Your task to perform on an android device: install app "Google Maps" Image 0: 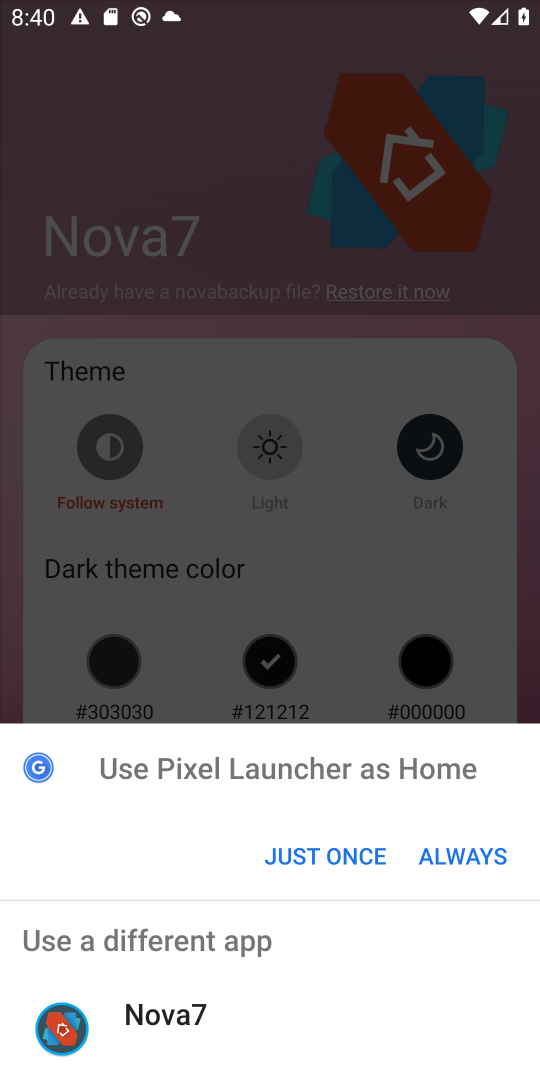
Step 0: click (471, 852)
Your task to perform on an android device: install app "Google Maps" Image 1: 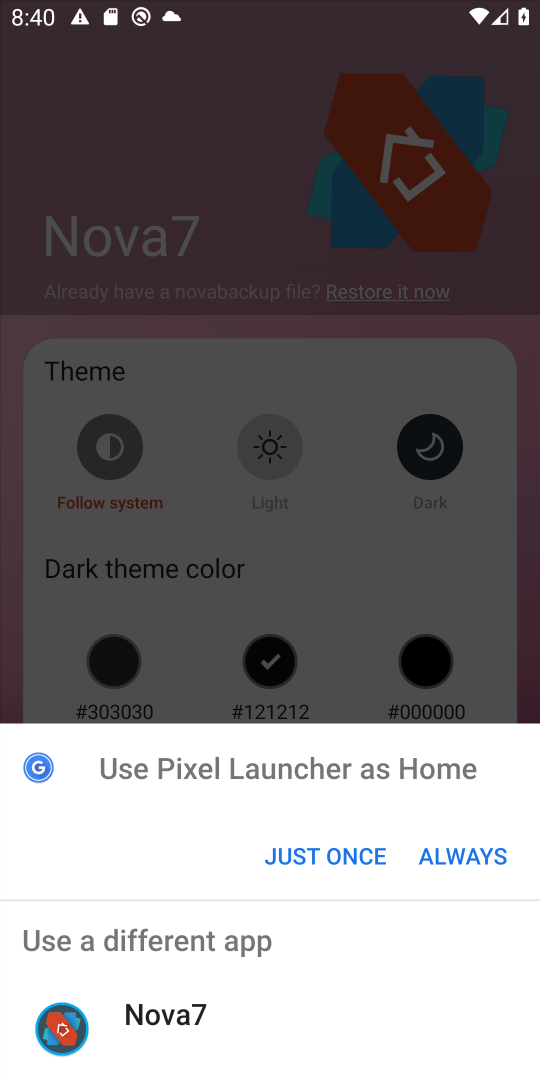
Step 1: press home button
Your task to perform on an android device: install app "Google Maps" Image 2: 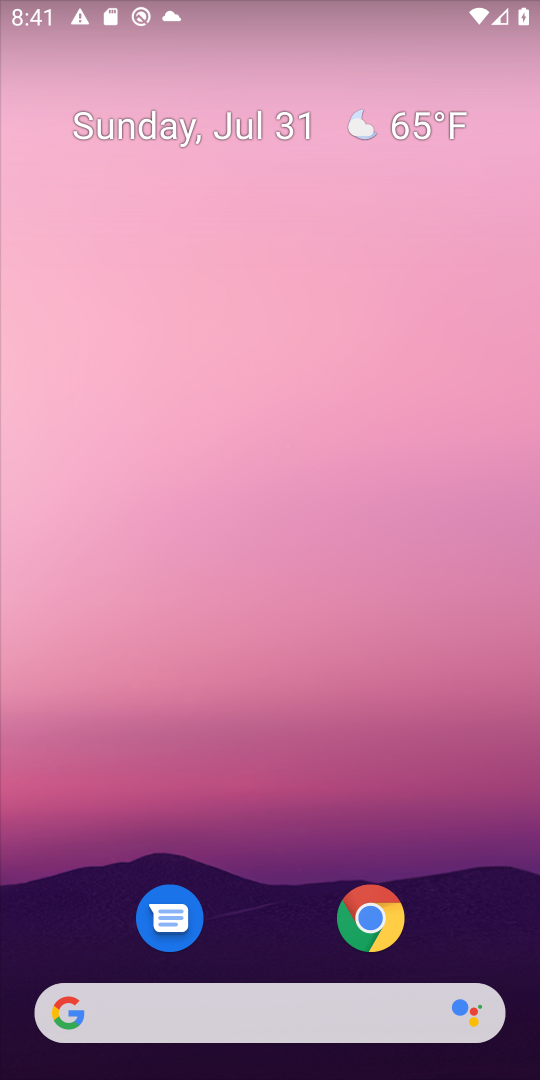
Step 2: drag from (200, 711) to (135, 235)
Your task to perform on an android device: install app "Google Maps" Image 3: 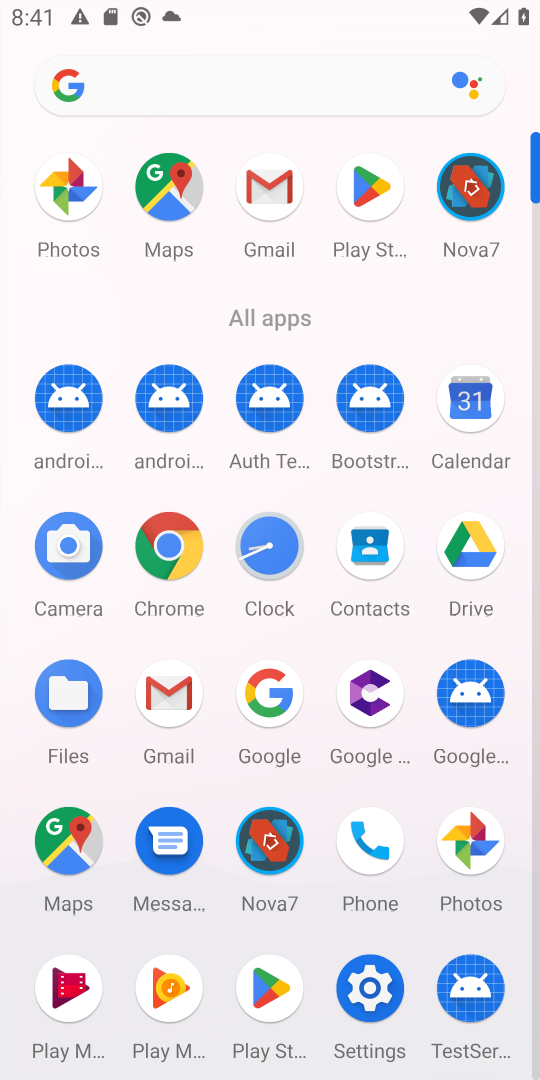
Step 3: click (366, 191)
Your task to perform on an android device: install app "Google Maps" Image 4: 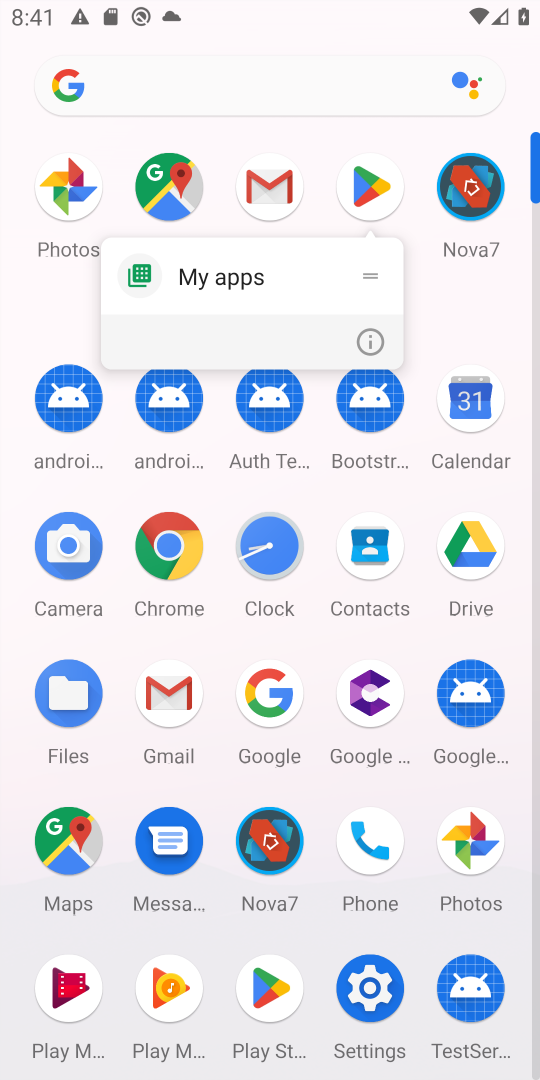
Step 4: click (366, 191)
Your task to perform on an android device: install app "Google Maps" Image 5: 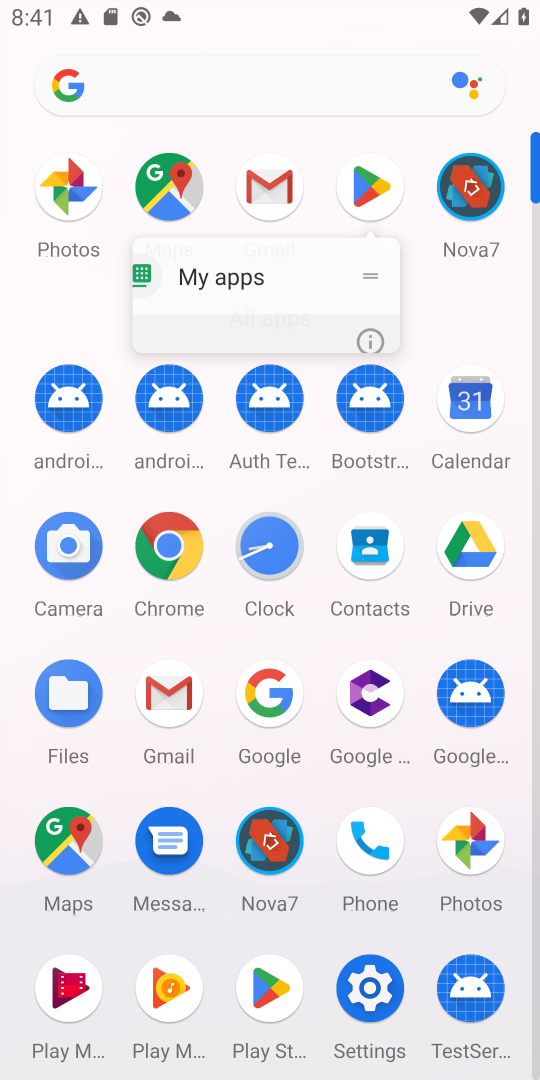
Step 5: click (366, 191)
Your task to perform on an android device: install app "Google Maps" Image 6: 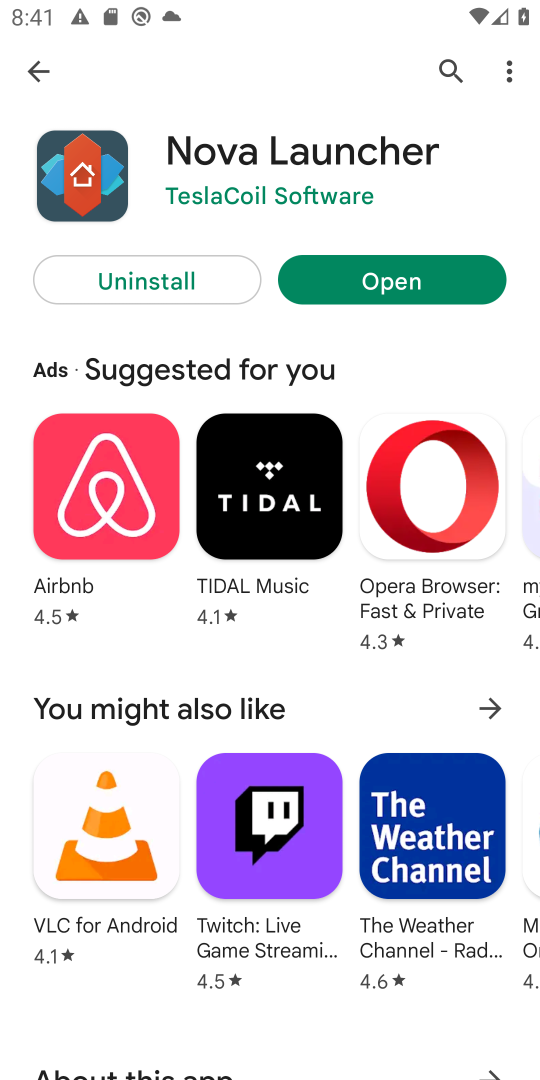
Step 6: click (456, 70)
Your task to perform on an android device: install app "Google Maps" Image 7: 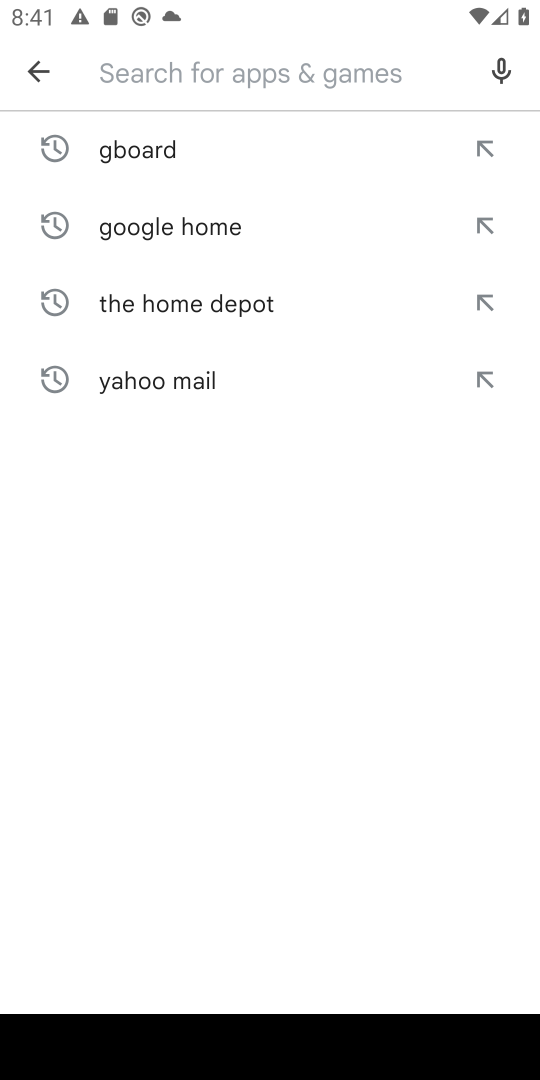
Step 7: type "google maps "
Your task to perform on an android device: install app "Google Maps" Image 8: 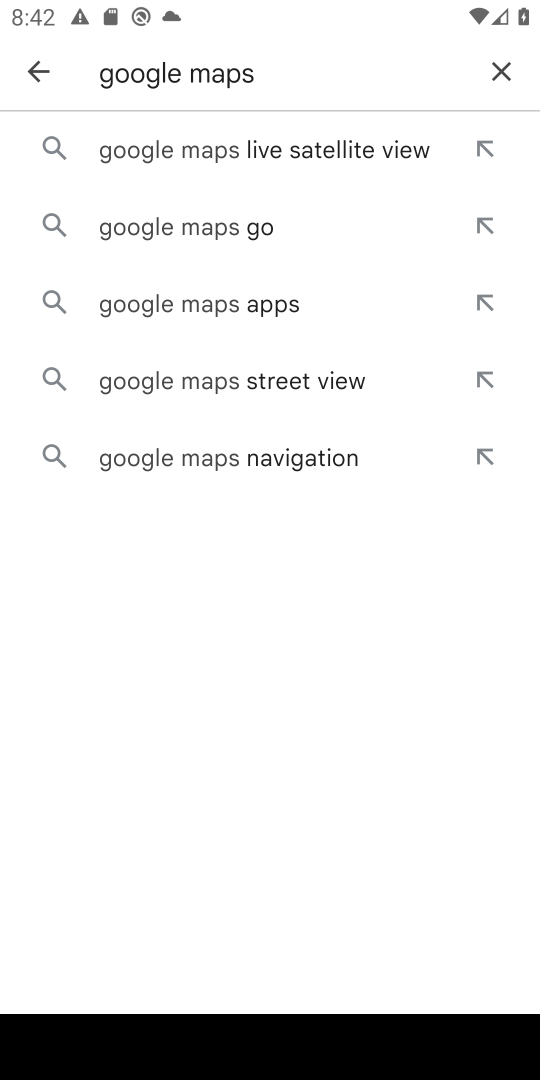
Step 8: press enter
Your task to perform on an android device: install app "Google Maps" Image 9: 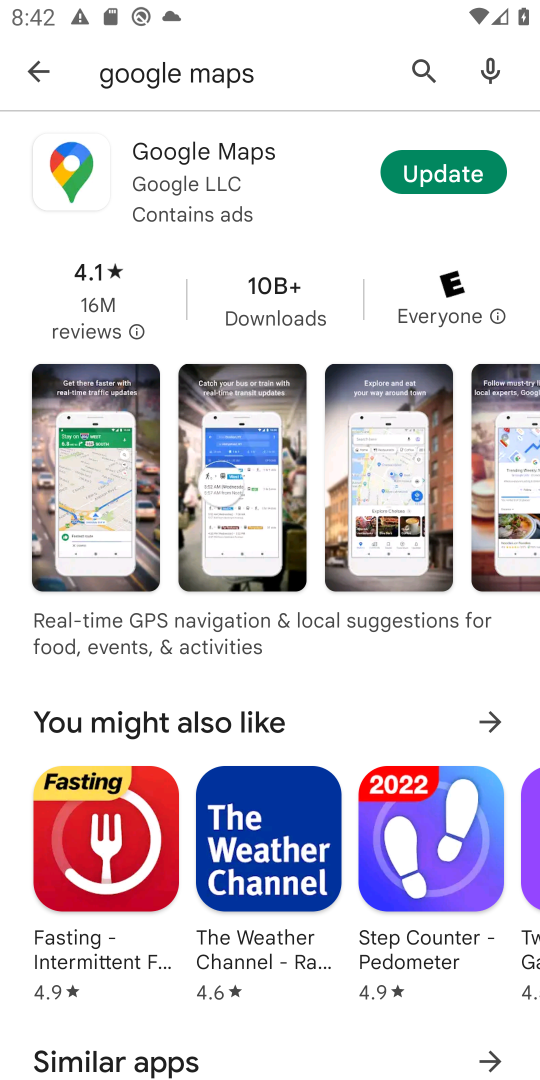
Step 9: task complete